Your task to perform on an android device: Add razer huntsman to the cart on walmart.com, then select checkout. Image 0: 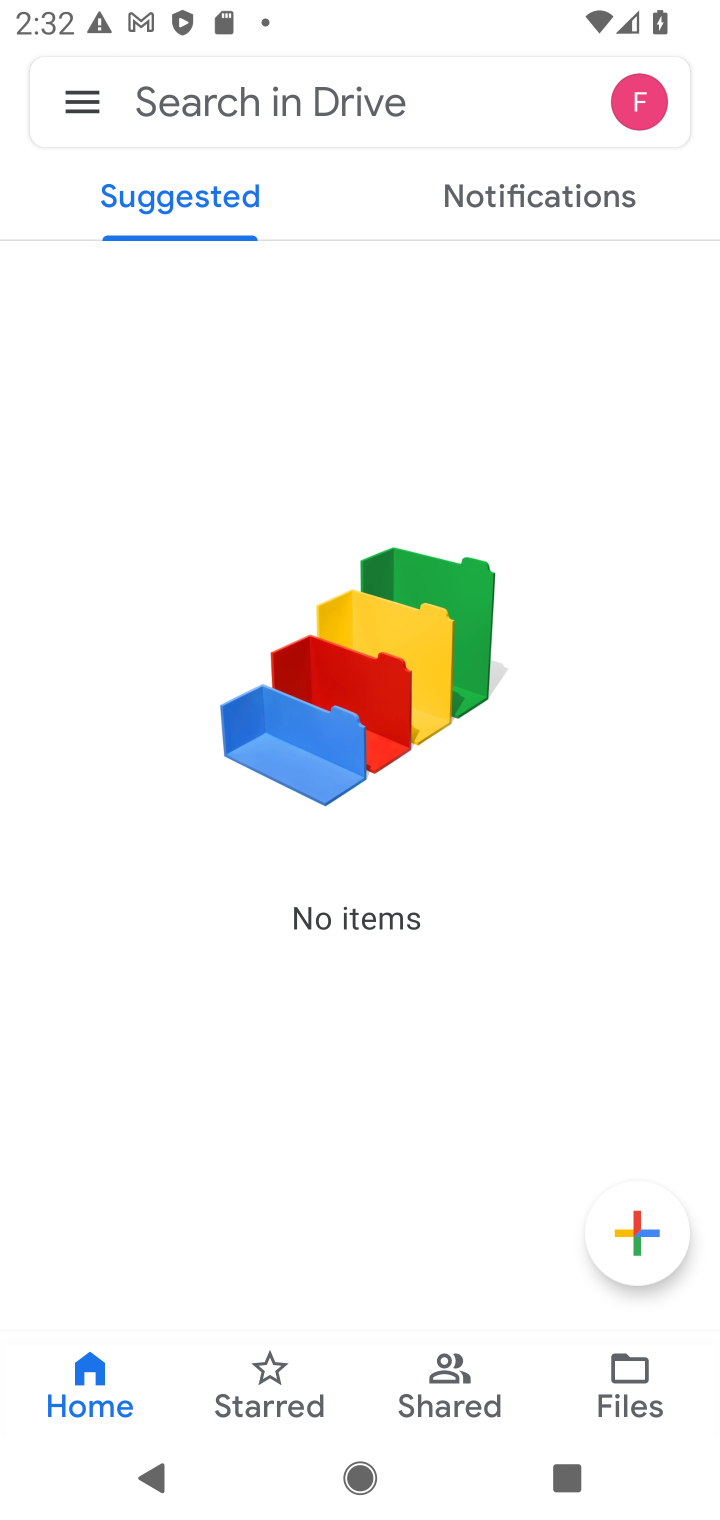
Step 0: press home button
Your task to perform on an android device: Add razer huntsman to the cart on walmart.com, then select checkout. Image 1: 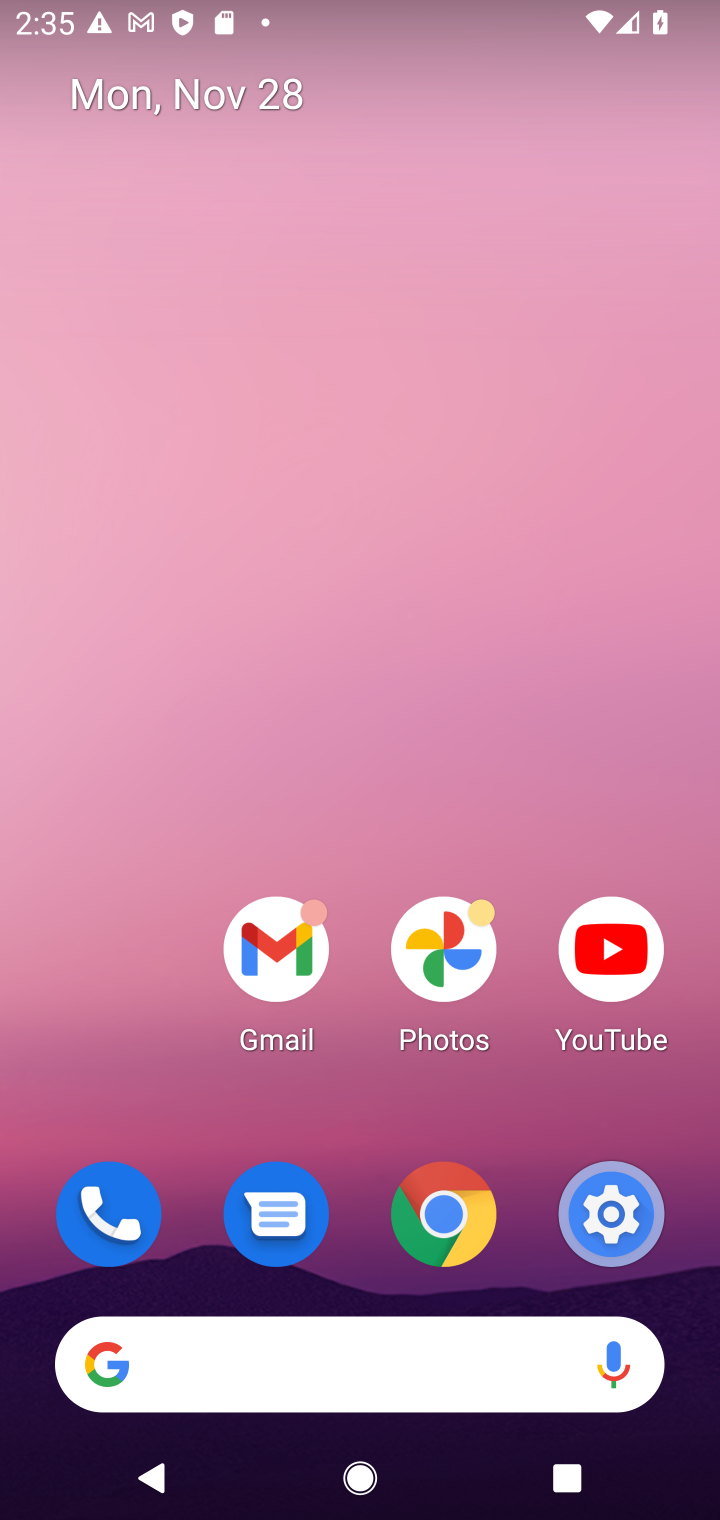
Step 1: task complete